Your task to perform on an android device: Go to network settings Image 0: 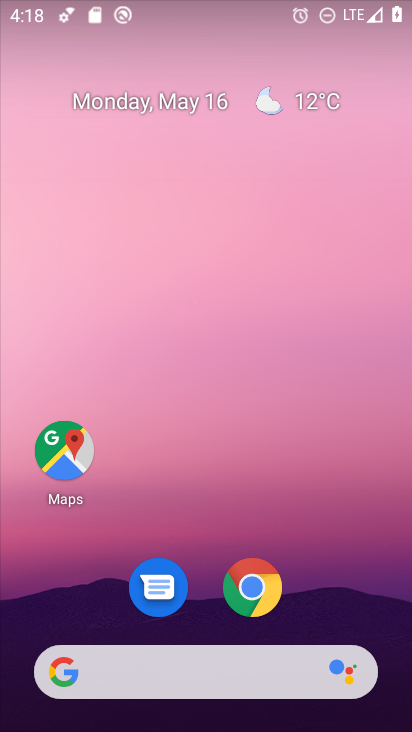
Step 0: drag from (384, 673) to (366, 223)
Your task to perform on an android device: Go to network settings Image 1: 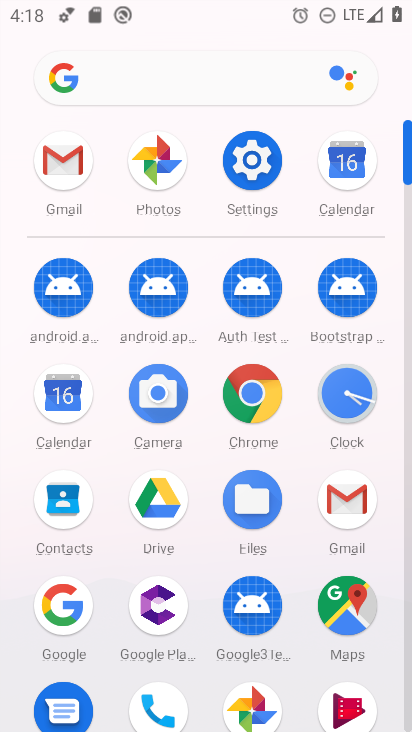
Step 1: click (257, 160)
Your task to perform on an android device: Go to network settings Image 2: 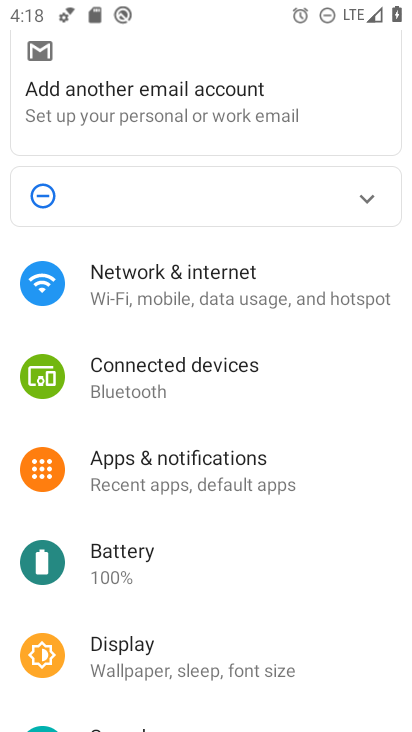
Step 2: click (181, 272)
Your task to perform on an android device: Go to network settings Image 3: 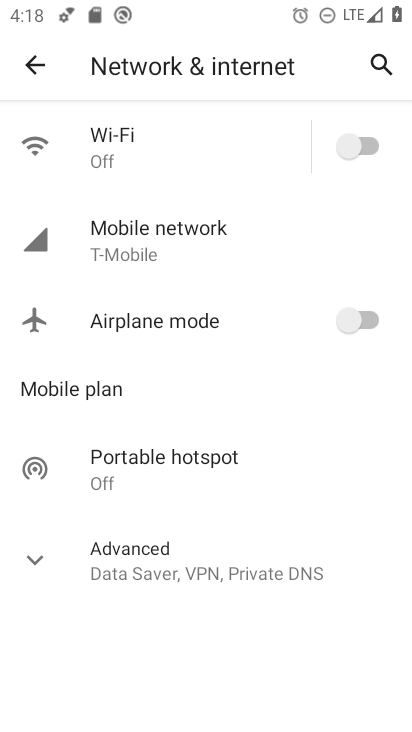
Step 3: task complete